Your task to perform on an android device: find photos in the google photos app Image 0: 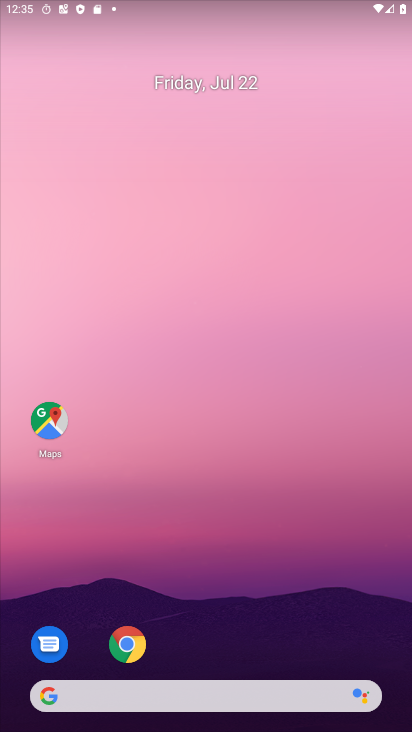
Step 0: drag from (201, 685) to (201, 272)
Your task to perform on an android device: find photos in the google photos app Image 1: 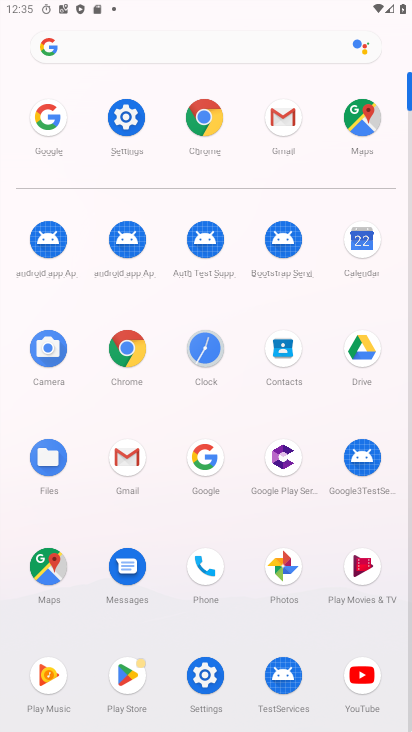
Step 1: click (279, 589)
Your task to perform on an android device: find photos in the google photos app Image 2: 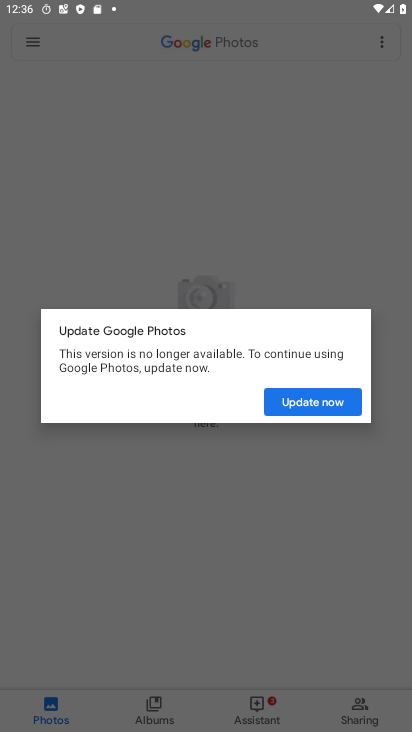
Step 2: click (193, 576)
Your task to perform on an android device: find photos in the google photos app Image 3: 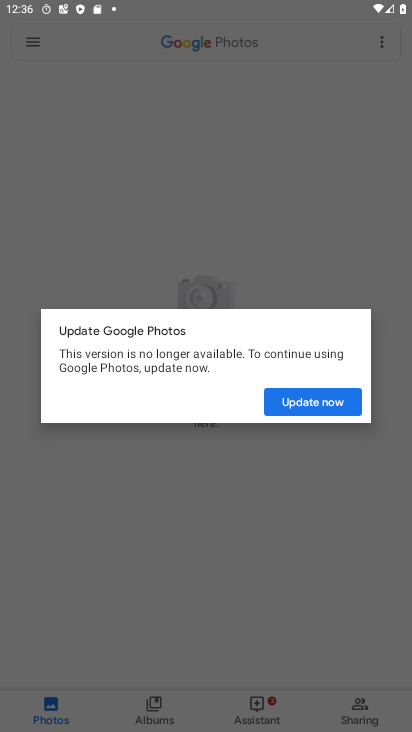
Step 3: task complete